Your task to perform on an android device: turn off data saver in the chrome app Image 0: 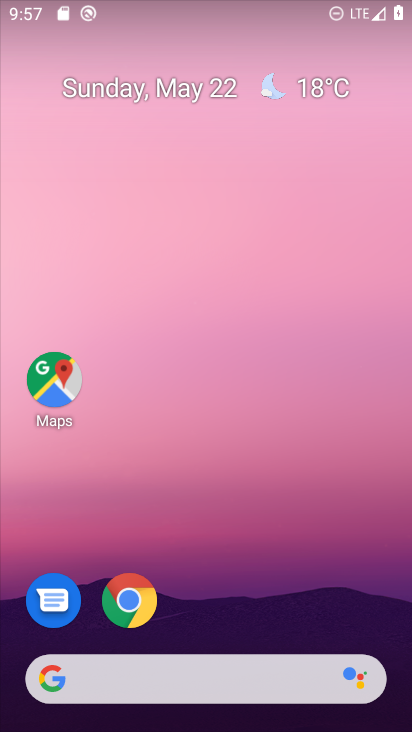
Step 0: drag from (356, 630) to (317, 11)
Your task to perform on an android device: turn off data saver in the chrome app Image 1: 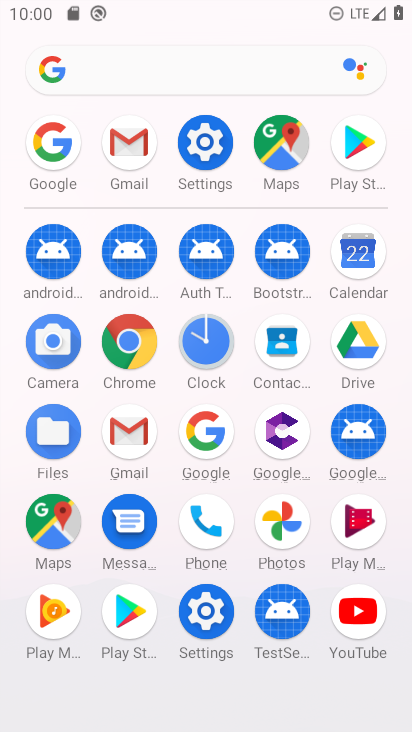
Step 1: click (142, 330)
Your task to perform on an android device: turn off data saver in the chrome app Image 2: 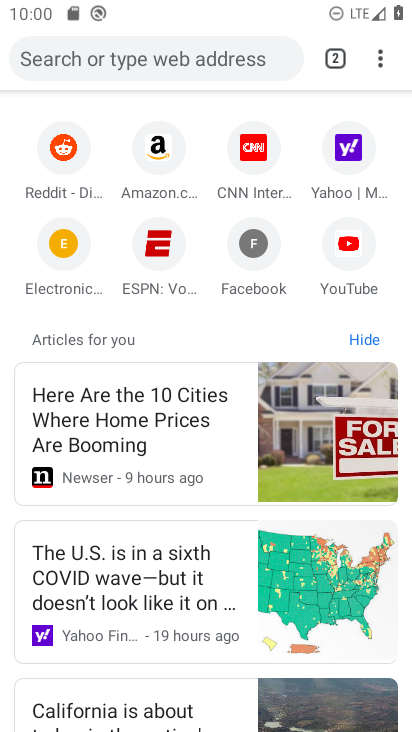
Step 2: click (381, 66)
Your task to perform on an android device: turn off data saver in the chrome app Image 3: 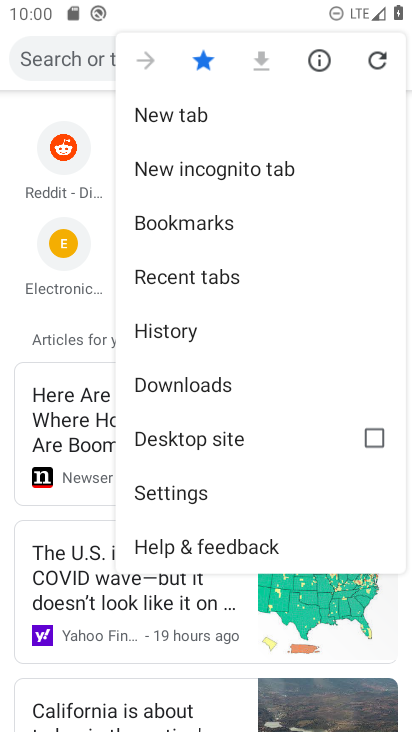
Step 3: click (201, 492)
Your task to perform on an android device: turn off data saver in the chrome app Image 4: 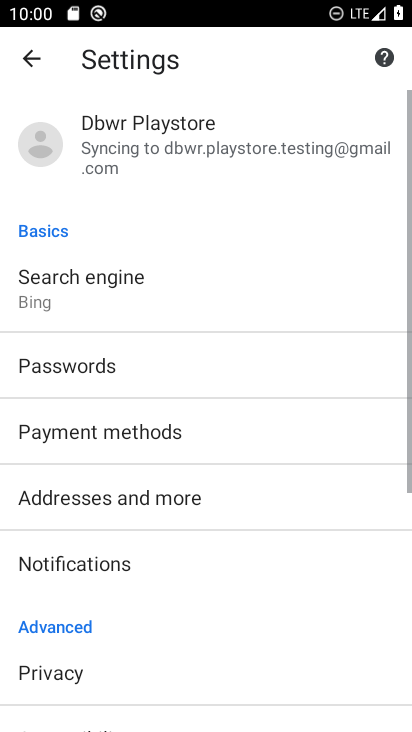
Step 4: drag from (140, 656) to (259, 169)
Your task to perform on an android device: turn off data saver in the chrome app Image 5: 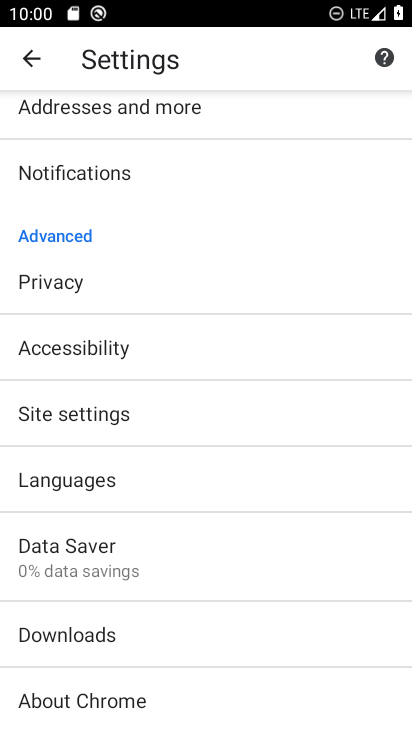
Step 5: click (145, 554)
Your task to perform on an android device: turn off data saver in the chrome app Image 6: 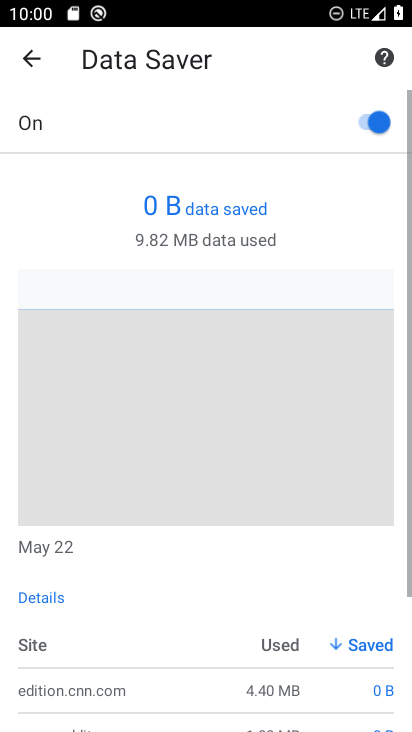
Step 6: click (369, 119)
Your task to perform on an android device: turn off data saver in the chrome app Image 7: 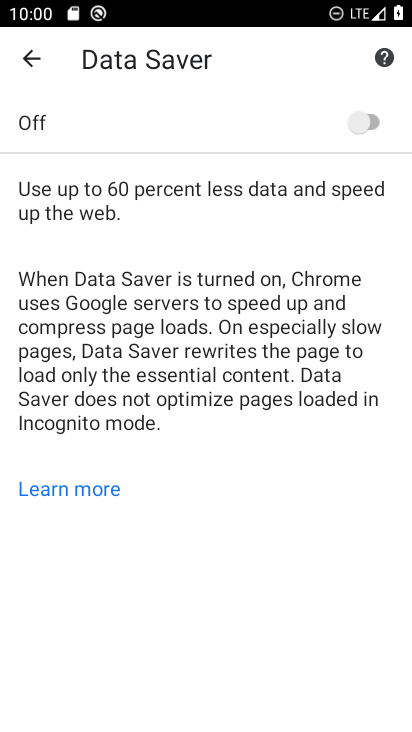
Step 7: task complete